Your task to perform on an android device: find which apps use the phone's location Image 0: 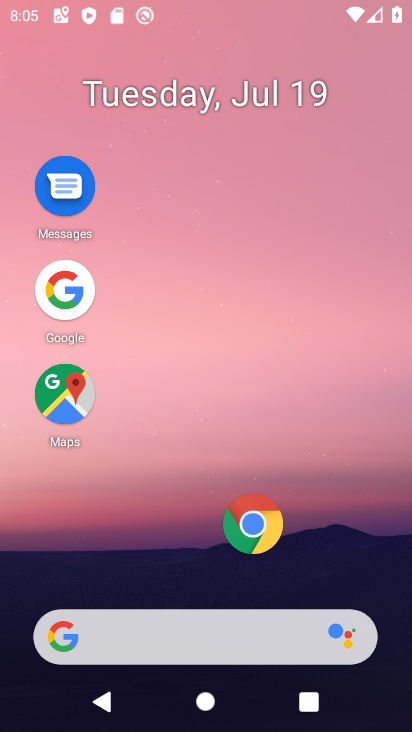
Step 0: click (404, 417)
Your task to perform on an android device: find which apps use the phone's location Image 1: 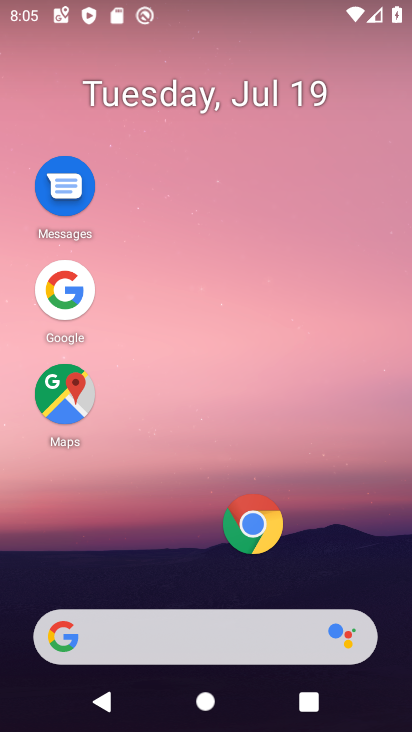
Step 1: drag from (191, 602) to (115, 25)
Your task to perform on an android device: find which apps use the phone's location Image 2: 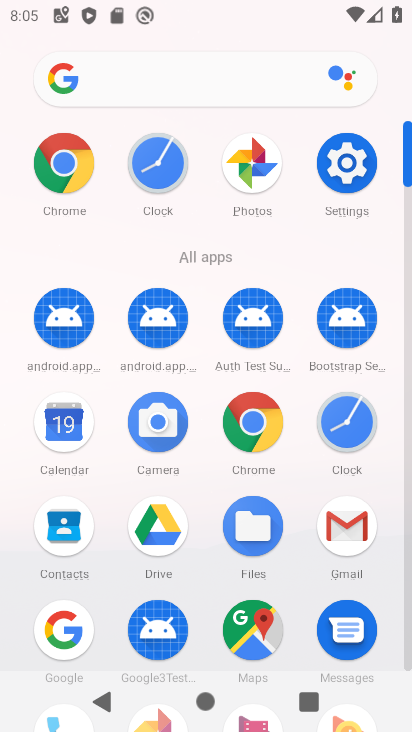
Step 2: click (353, 179)
Your task to perform on an android device: find which apps use the phone's location Image 3: 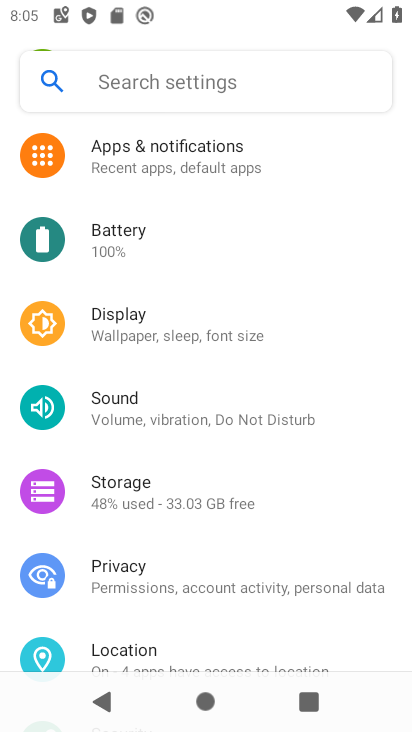
Step 3: drag from (248, 196) to (199, 517)
Your task to perform on an android device: find which apps use the phone's location Image 4: 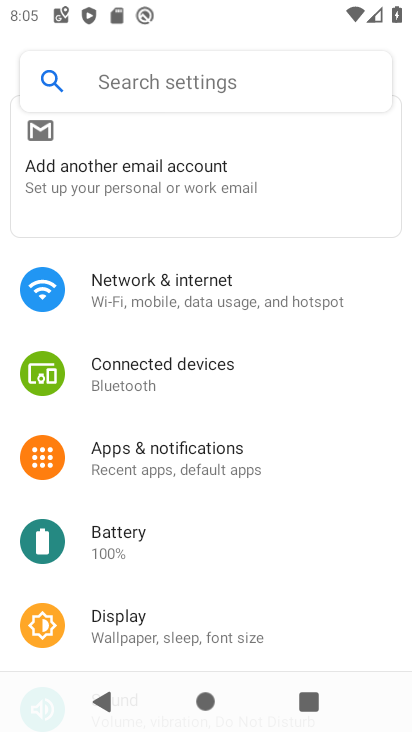
Step 4: click (155, 475)
Your task to perform on an android device: find which apps use the phone's location Image 5: 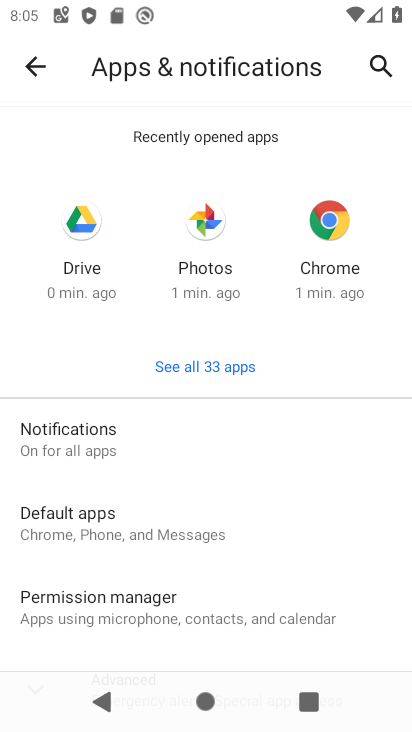
Step 5: drag from (135, 563) to (139, 262)
Your task to perform on an android device: find which apps use the phone's location Image 6: 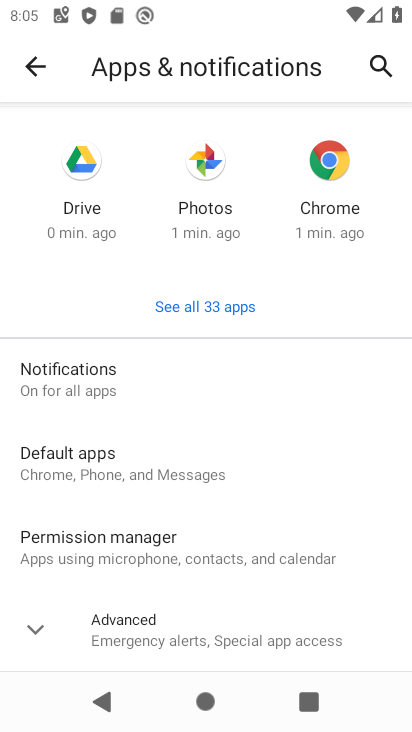
Step 6: click (174, 634)
Your task to perform on an android device: find which apps use the phone's location Image 7: 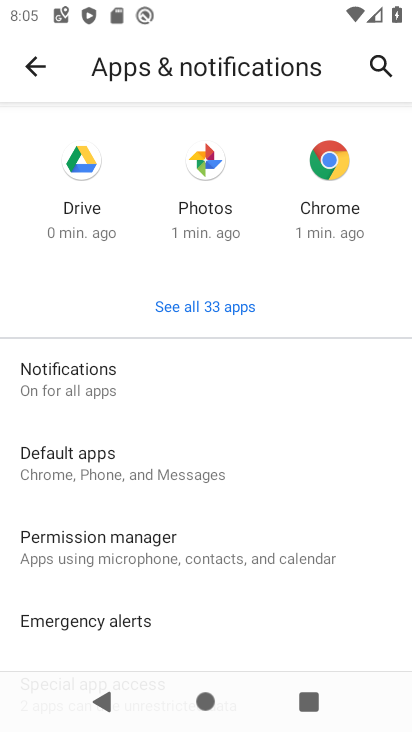
Step 7: click (18, 67)
Your task to perform on an android device: find which apps use the phone's location Image 8: 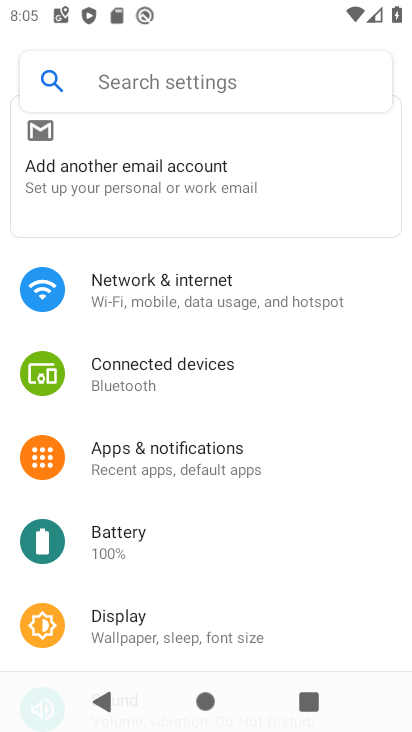
Step 8: drag from (165, 523) to (138, 181)
Your task to perform on an android device: find which apps use the phone's location Image 9: 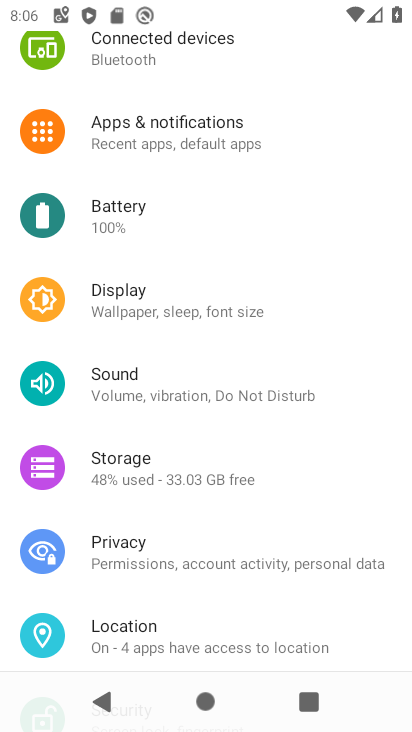
Step 9: click (162, 645)
Your task to perform on an android device: find which apps use the phone's location Image 10: 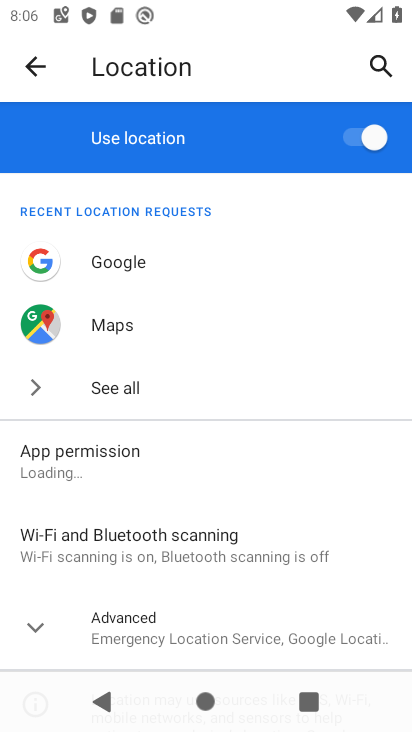
Step 10: click (116, 453)
Your task to perform on an android device: find which apps use the phone's location Image 11: 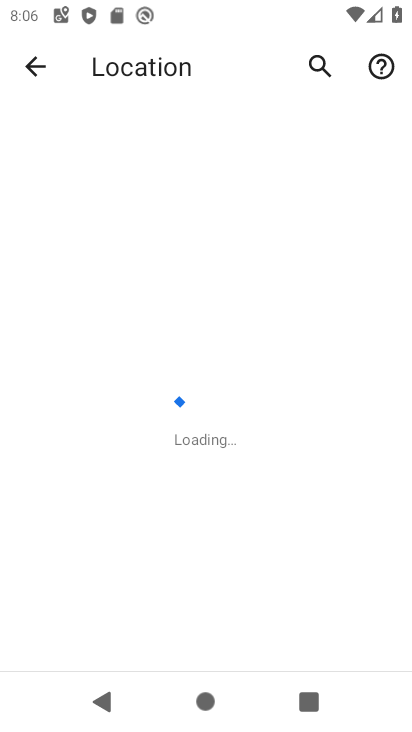
Step 11: task complete